Your task to perform on an android device: turn pop-ups on in chrome Image 0: 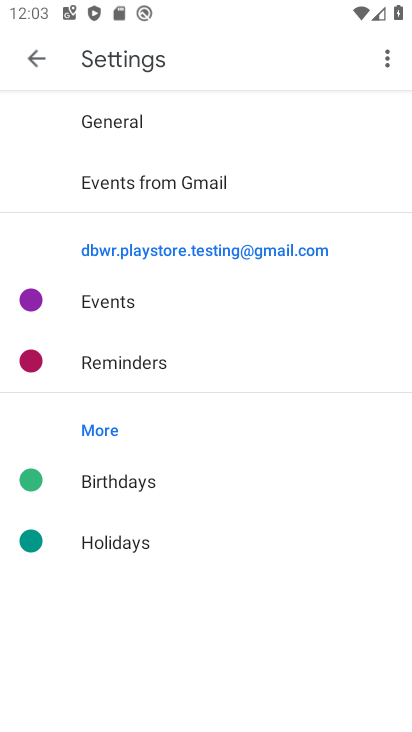
Step 0: press home button
Your task to perform on an android device: turn pop-ups on in chrome Image 1: 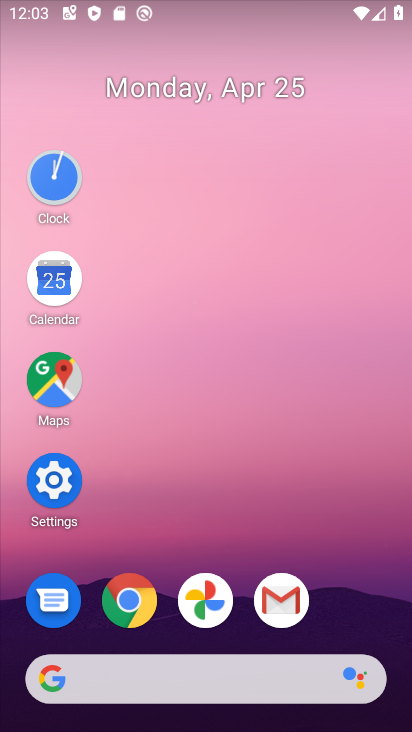
Step 1: click (139, 603)
Your task to perform on an android device: turn pop-ups on in chrome Image 2: 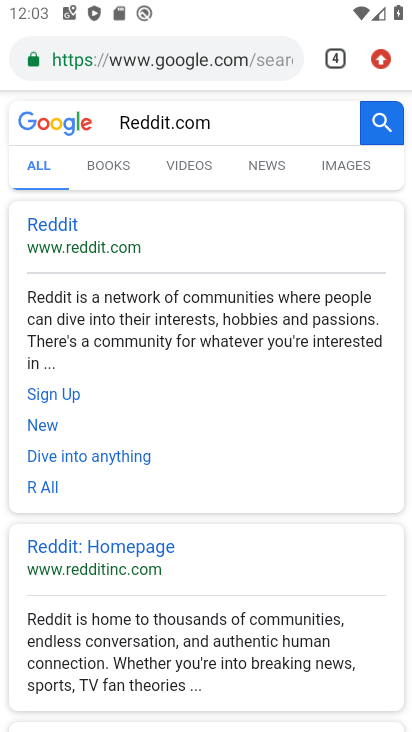
Step 2: click (378, 66)
Your task to perform on an android device: turn pop-ups on in chrome Image 3: 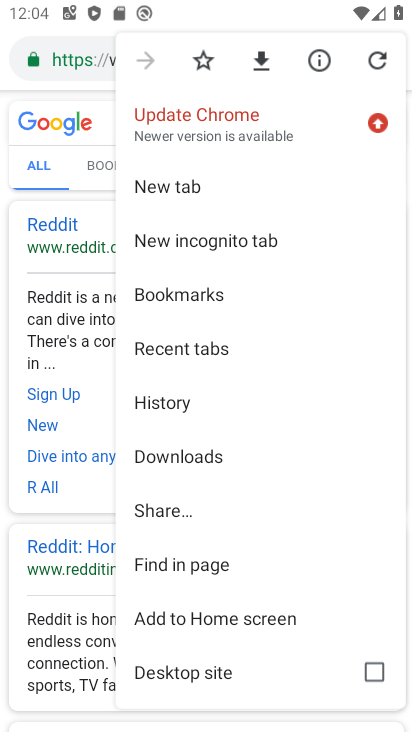
Step 3: drag from (228, 583) to (172, 119)
Your task to perform on an android device: turn pop-ups on in chrome Image 4: 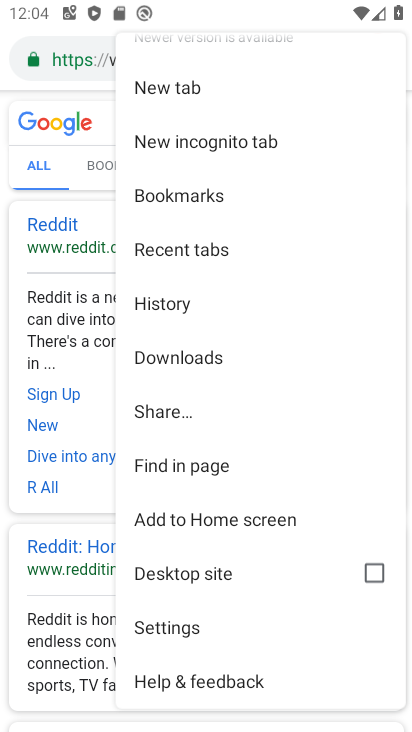
Step 4: click (165, 624)
Your task to perform on an android device: turn pop-ups on in chrome Image 5: 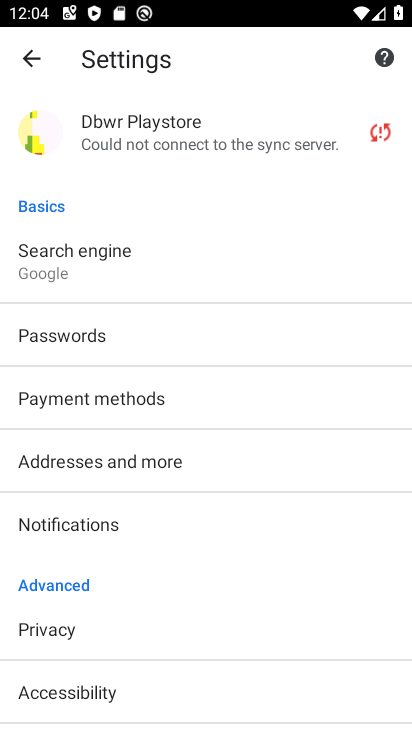
Step 5: drag from (148, 592) to (44, 278)
Your task to perform on an android device: turn pop-ups on in chrome Image 6: 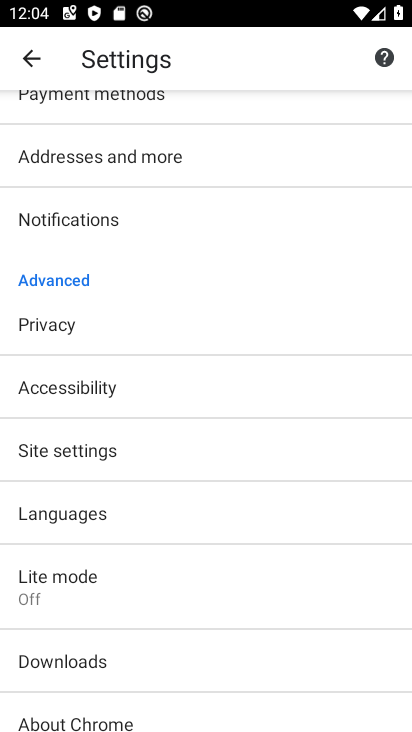
Step 6: click (94, 450)
Your task to perform on an android device: turn pop-ups on in chrome Image 7: 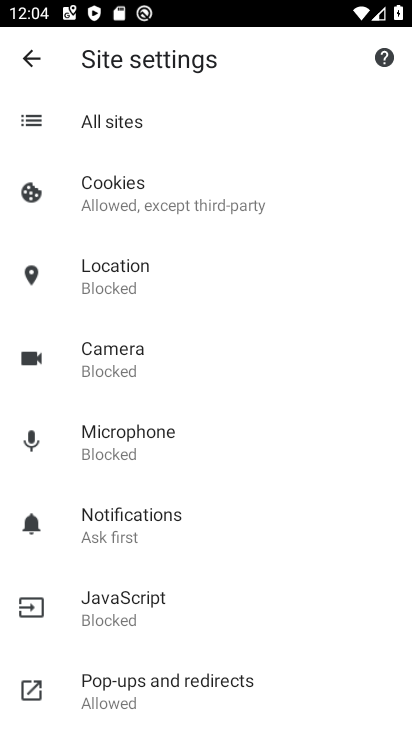
Step 7: click (140, 682)
Your task to perform on an android device: turn pop-ups on in chrome Image 8: 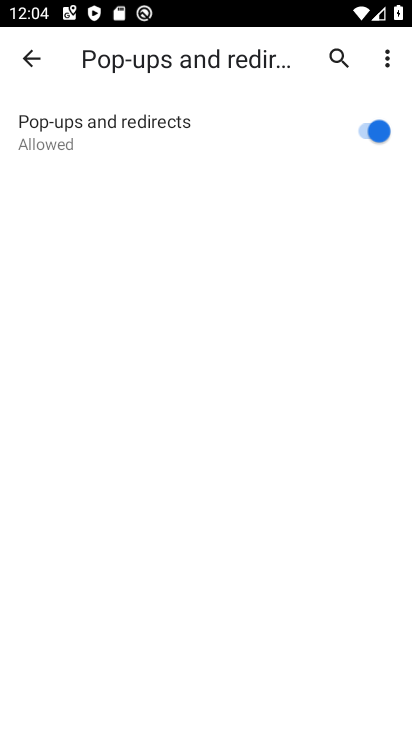
Step 8: task complete